Your task to perform on an android device: toggle airplane mode Image 0: 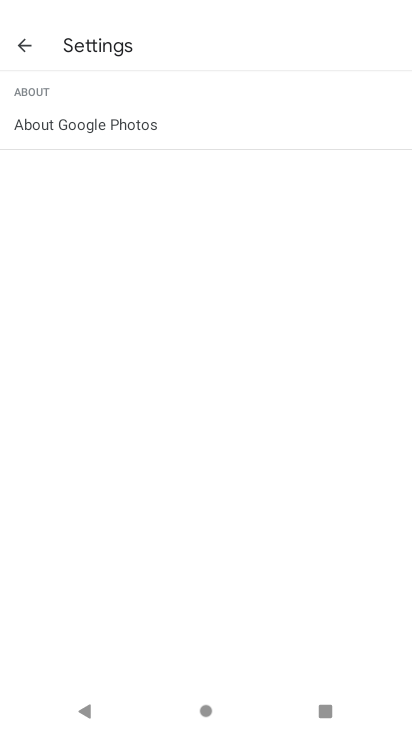
Step 0: press home button
Your task to perform on an android device: toggle airplane mode Image 1: 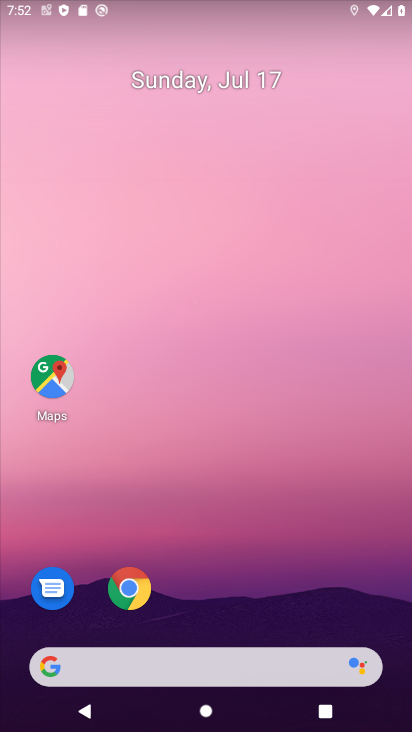
Step 1: drag from (206, 630) to (194, 247)
Your task to perform on an android device: toggle airplane mode Image 2: 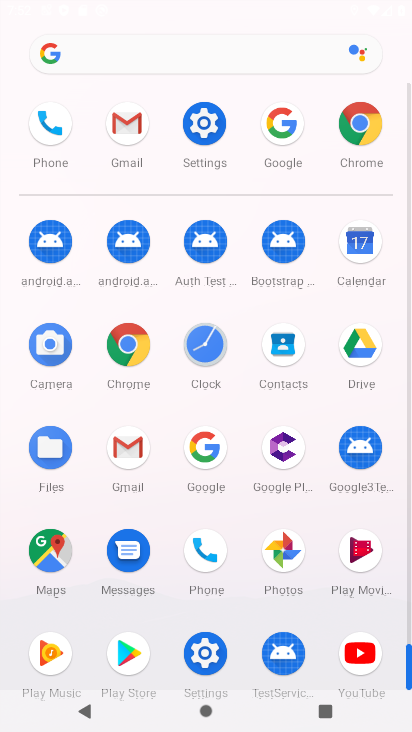
Step 2: click (211, 152)
Your task to perform on an android device: toggle airplane mode Image 3: 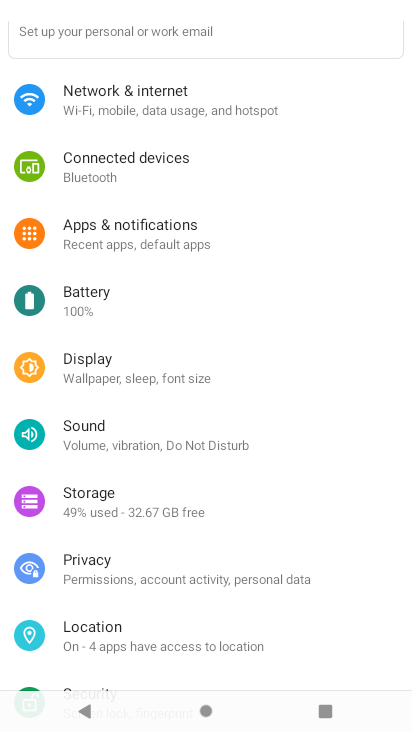
Step 3: drag from (226, 243) to (209, 531)
Your task to perform on an android device: toggle airplane mode Image 4: 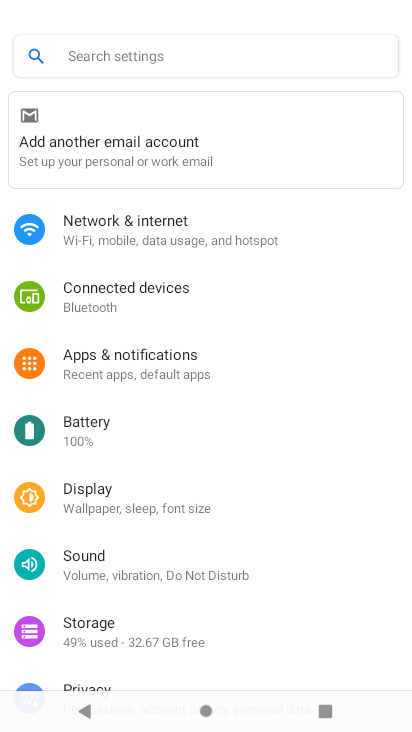
Step 4: click (232, 232)
Your task to perform on an android device: toggle airplane mode Image 5: 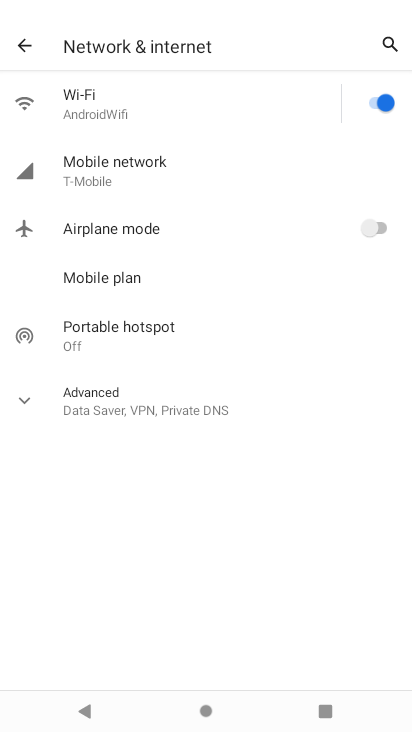
Step 5: click (198, 232)
Your task to perform on an android device: toggle airplane mode Image 6: 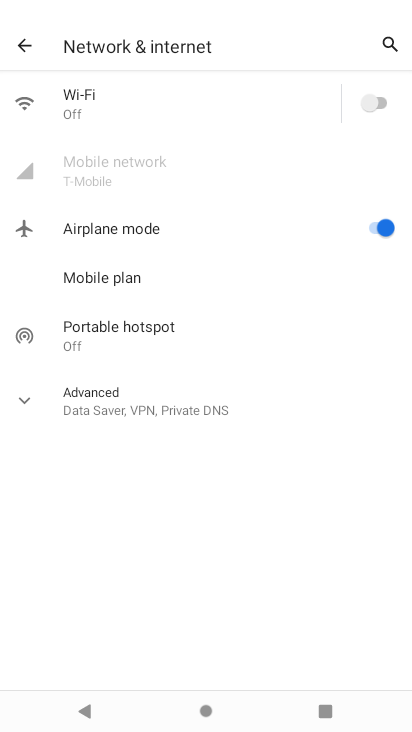
Step 6: task complete